Your task to perform on an android device: Is it going to rain this weekend? Image 0: 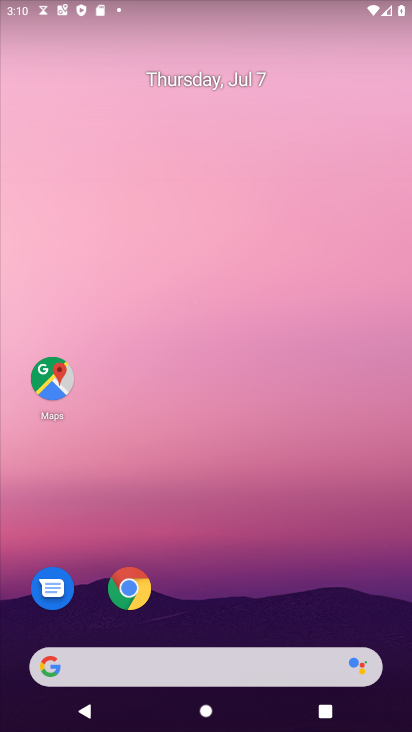
Step 0: drag from (208, 600) to (191, 68)
Your task to perform on an android device: Is it going to rain this weekend? Image 1: 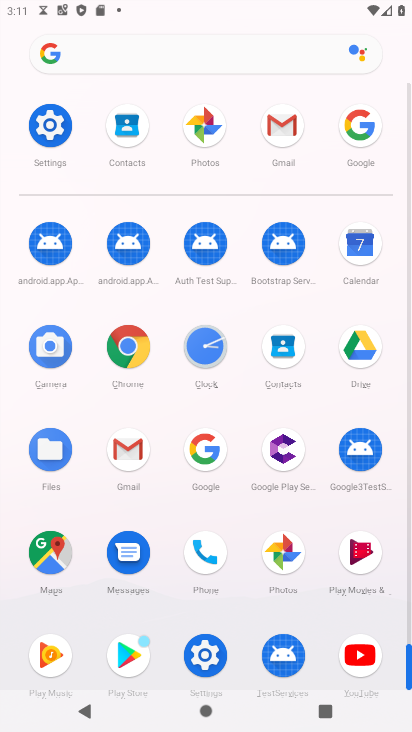
Step 1: click (204, 447)
Your task to perform on an android device: Is it going to rain this weekend? Image 2: 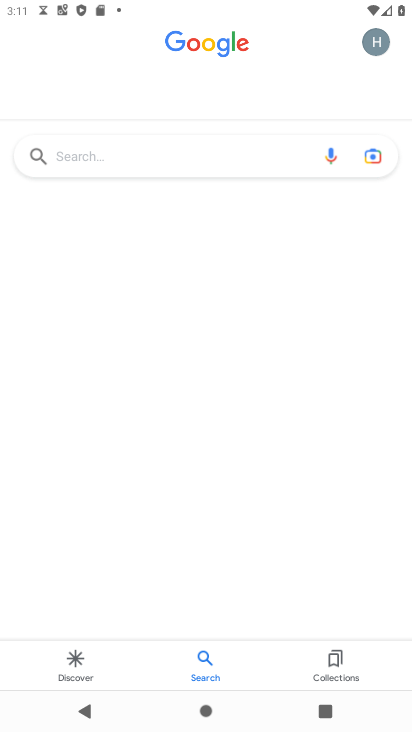
Step 2: click (146, 169)
Your task to perform on an android device: Is it going to rain this weekend? Image 3: 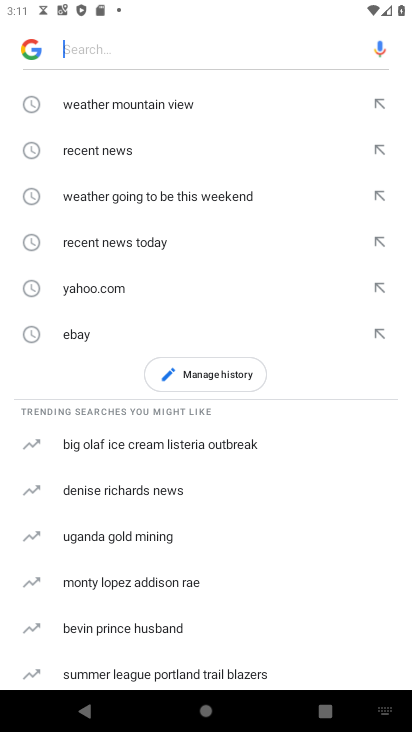
Step 3: type "Is it going to rain this weekend"
Your task to perform on an android device: Is it going to rain this weekend? Image 4: 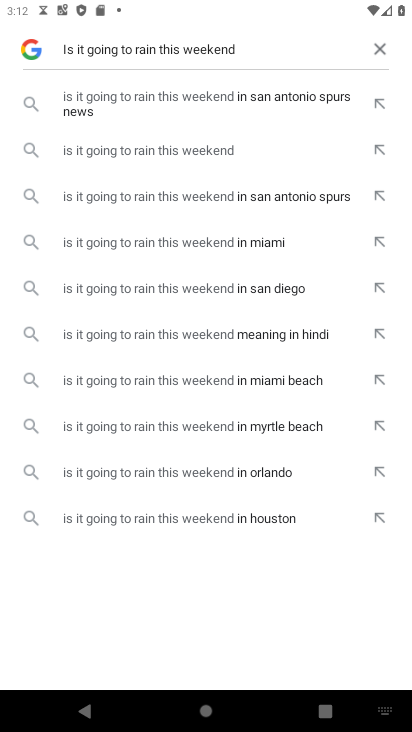
Step 4: click (223, 148)
Your task to perform on an android device: Is it going to rain this weekend? Image 5: 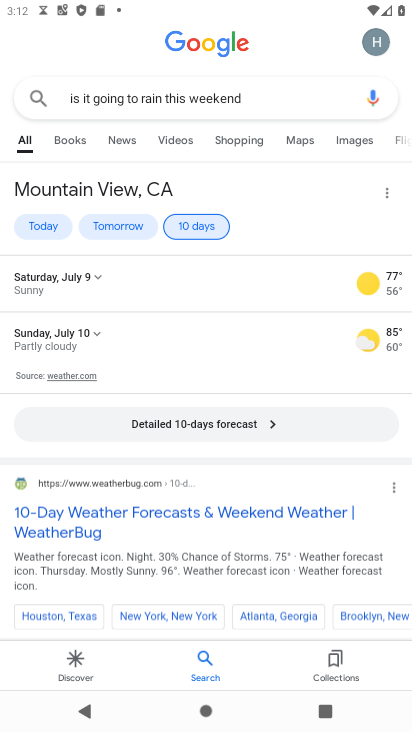
Step 5: task complete